Your task to perform on an android device: toggle airplane mode Image 0: 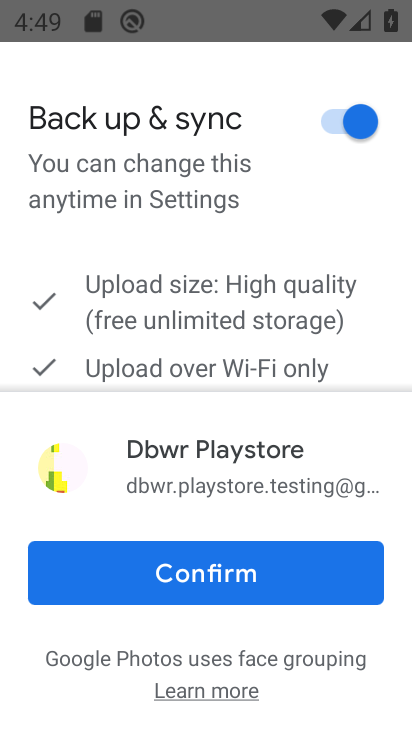
Step 0: press home button
Your task to perform on an android device: toggle airplane mode Image 1: 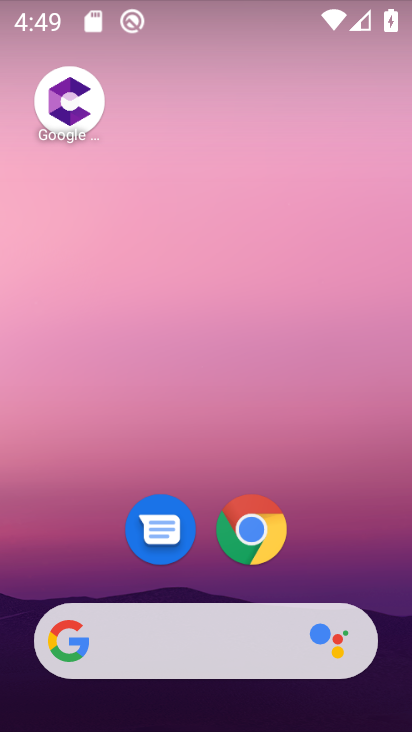
Step 1: drag from (334, 367) to (330, 167)
Your task to perform on an android device: toggle airplane mode Image 2: 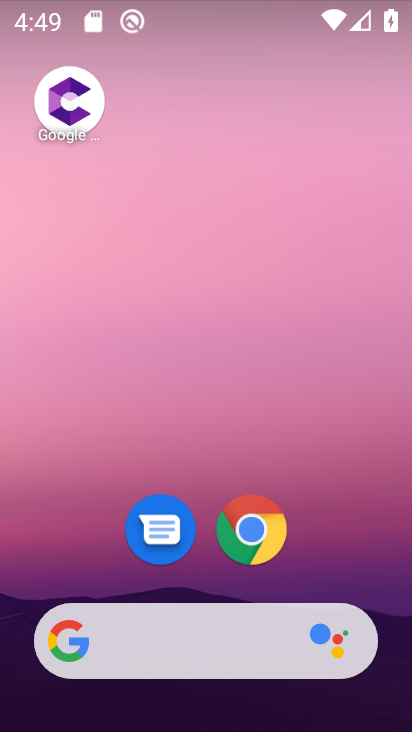
Step 2: drag from (355, 220) to (357, 132)
Your task to perform on an android device: toggle airplane mode Image 3: 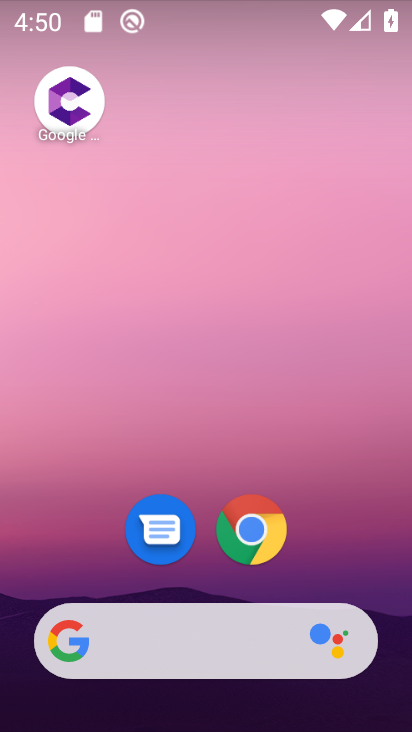
Step 3: drag from (299, 562) to (299, 59)
Your task to perform on an android device: toggle airplane mode Image 4: 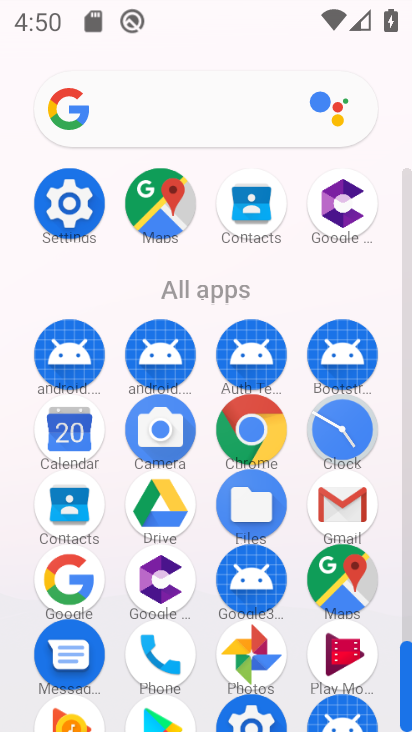
Step 4: click (79, 208)
Your task to perform on an android device: toggle airplane mode Image 5: 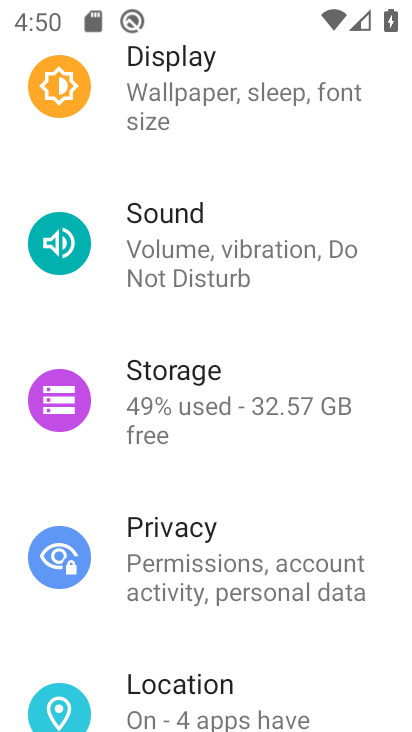
Step 5: drag from (256, 190) to (266, 619)
Your task to perform on an android device: toggle airplane mode Image 6: 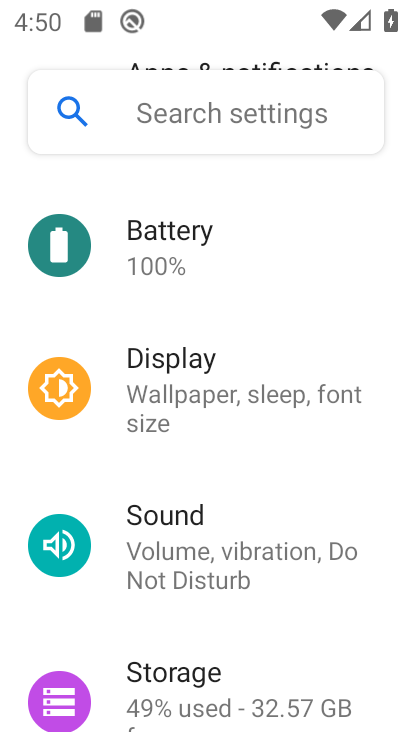
Step 6: drag from (282, 271) to (289, 640)
Your task to perform on an android device: toggle airplane mode Image 7: 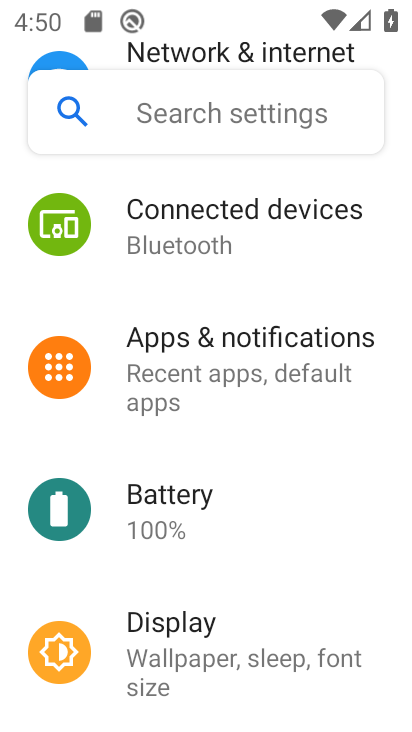
Step 7: drag from (322, 292) to (310, 600)
Your task to perform on an android device: toggle airplane mode Image 8: 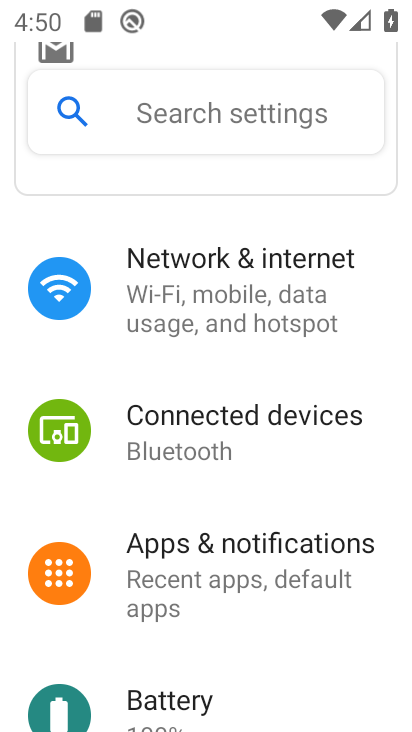
Step 8: drag from (294, 233) to (295, 376)
Your task to perform on an android device: toggle airplane mode Image 9: 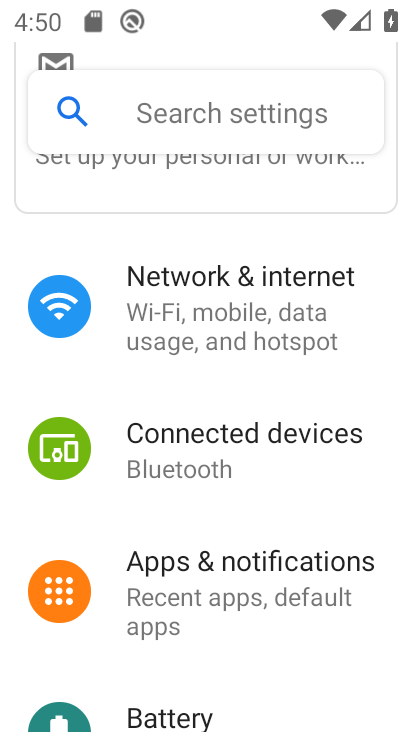
Step 9: click (277, 341)
Your task to perform on an android device: toggle airplane mode Image 10: 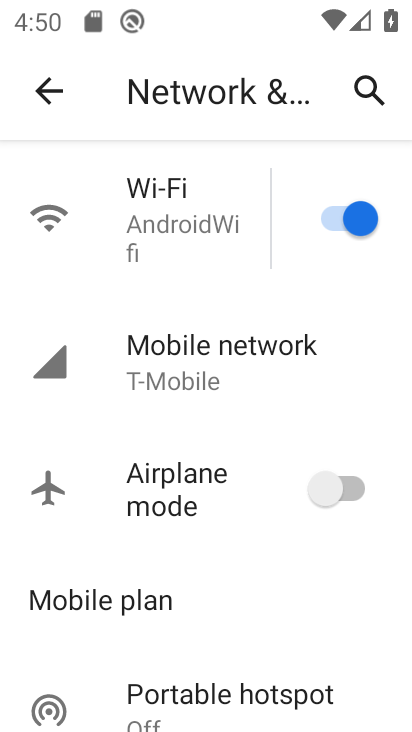
Step 10: click (342, 496)
Your task to perform on an android device: toggle airplane mode Image 11: 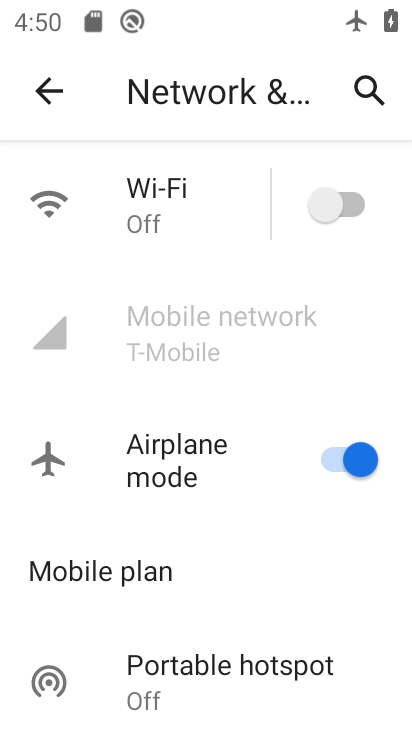
Step 11: task complete